Your task to perform on an android device: Set the phone to "Do not disturb". Image 0: 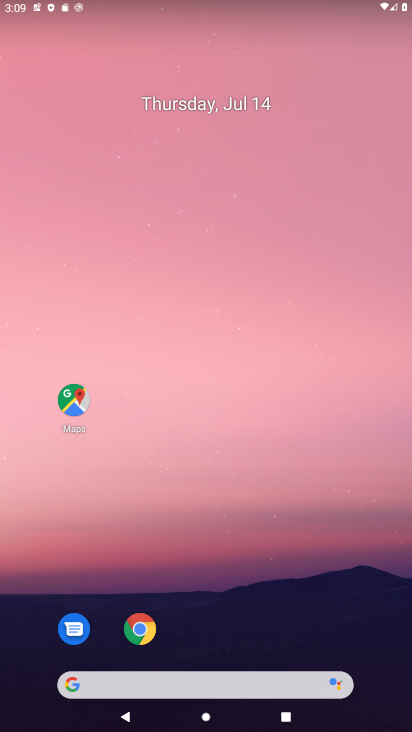
Step 0: press home button
Your task to perform on an android device: Set the phone to "Do not disturb". Image 1: 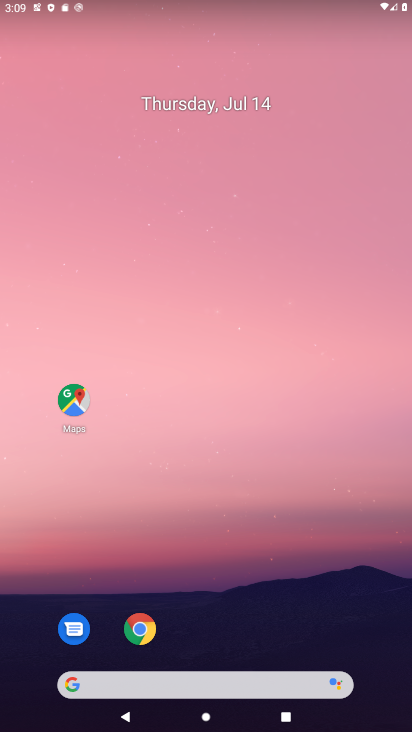
Step 1: drag from (189, 5) to (218, 531)
Your task to perform on an android device: Set the phone to "Do not disturb". Image 2: 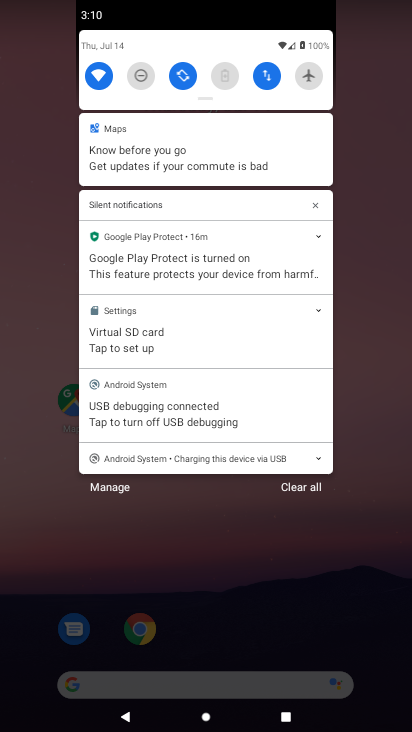
Step 2: click (139, 72)
Your task to perform on an android device: Set the phone to "Do not disturb". Image 3: 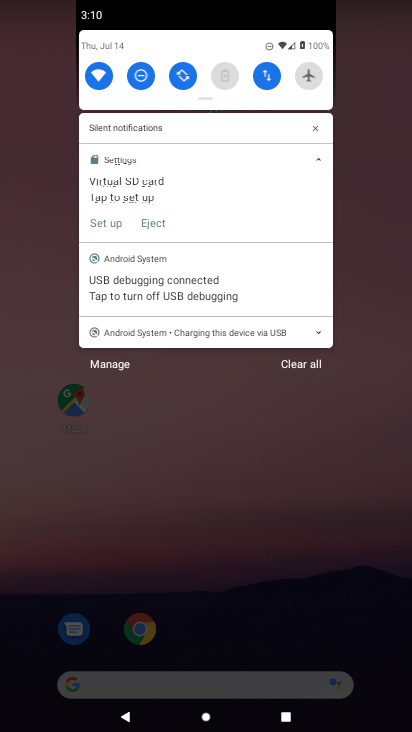
Step 3: task complete